Your task to perform on an android device: change notification settings in the gmail app Image 0: 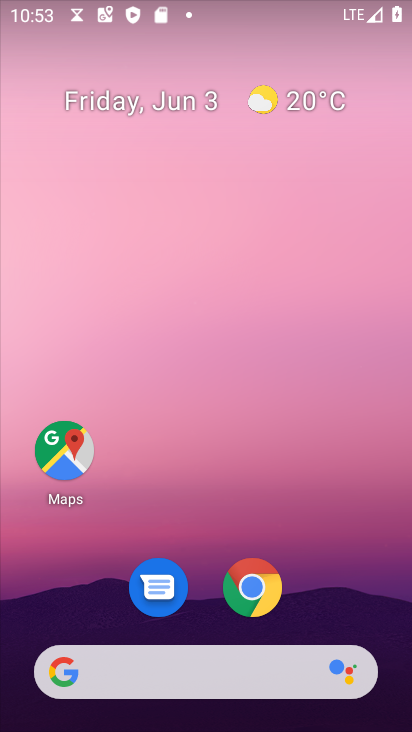
Step 0: drag from (297, 321) to (190, 7)
Your task to perform on an android device: change notification settings in the gmail app Image 1: 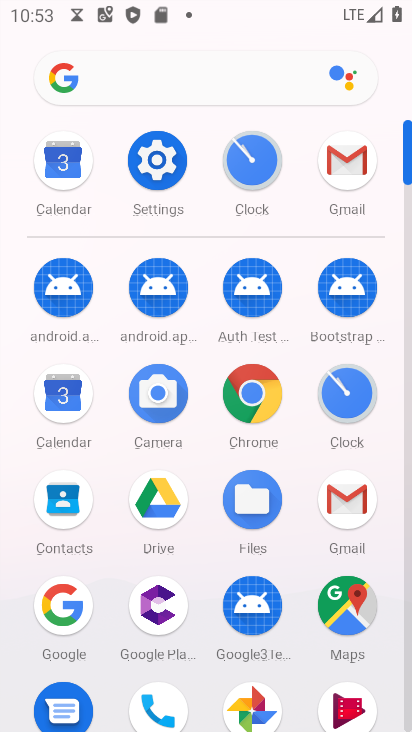
Step 1: click (352, 500)
Your task to perform on an android device: change notification settings in the gmail app Image 2: 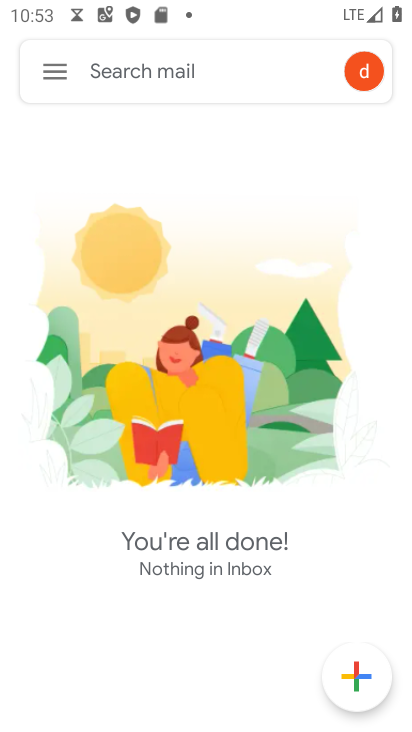
Step 2: click (64, 78)
Your task to perform on an android device: change notification settings in the gmail app Image 3: 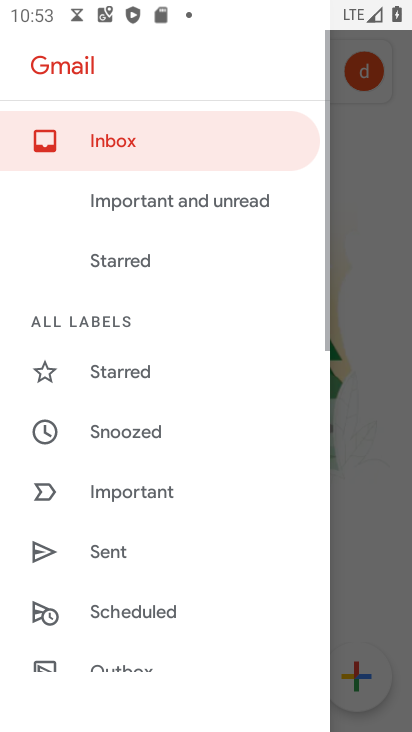
Step 3: drag from (239, 603) to (115, 29)
Your task to perform on an android device: change notification settings in the gmail app Image 4: 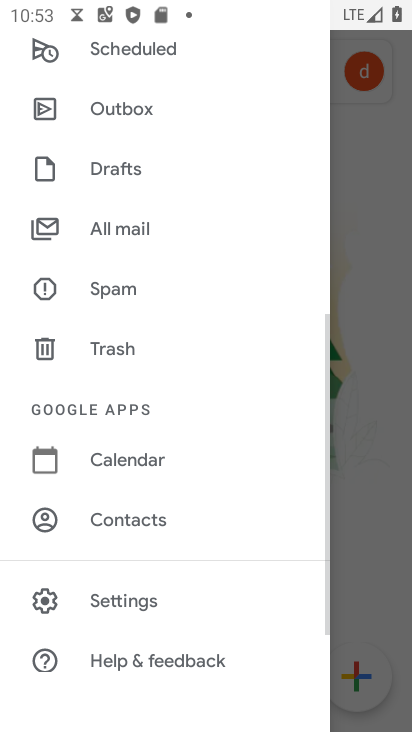
Step 4: click (166, 571)
Your task to perform on an android device: change notification settings in the gmail app Image 5: 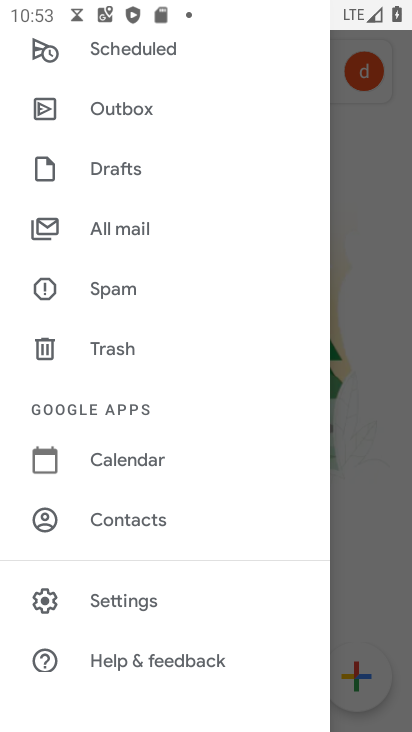
Step 5: click (180, 606)
Your task to perform on an android device: change notification settings in the gmail app Image 6: 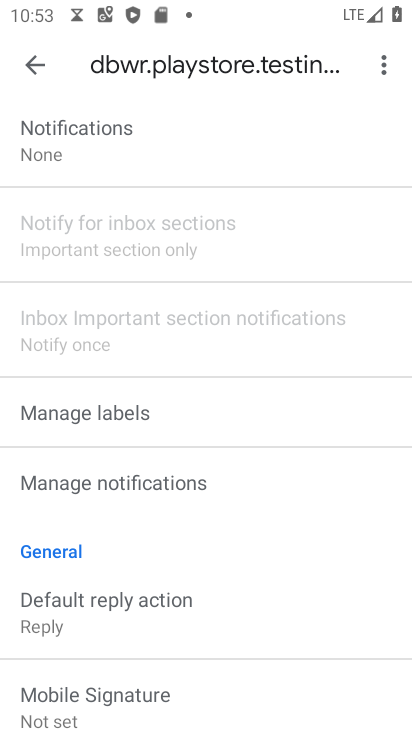
Step 6: click (169, 490)
Your task to perform on an android device: change notification settings in the gmail app Image 7: 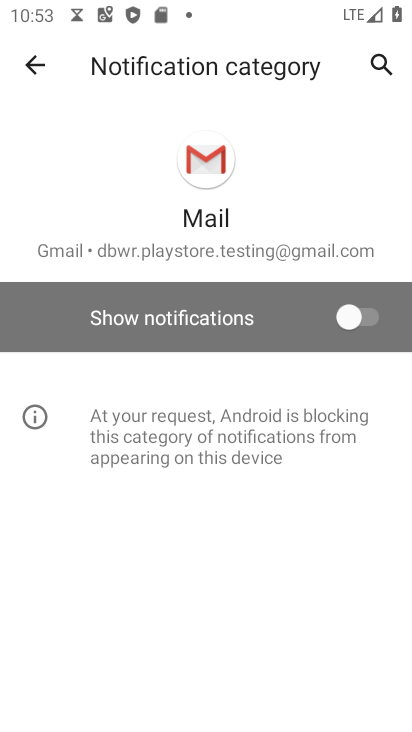
Step 7: click (372, 317)
Your task to perform on an android device: change notification settings in the gmail app Image 8: 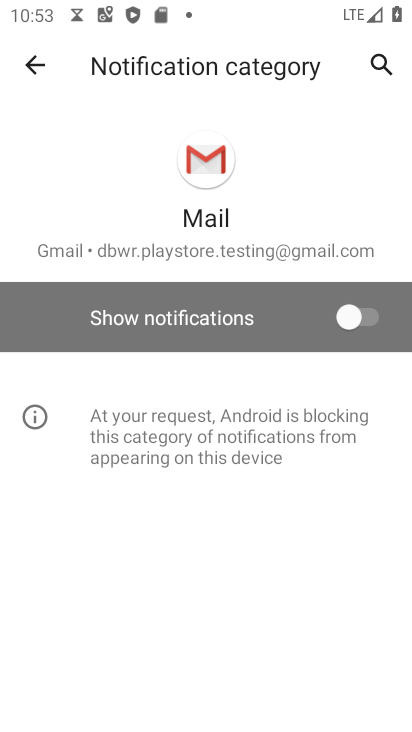
Step 8: task complete